Your task to perform on an android device: Go to battery settings Image 0: 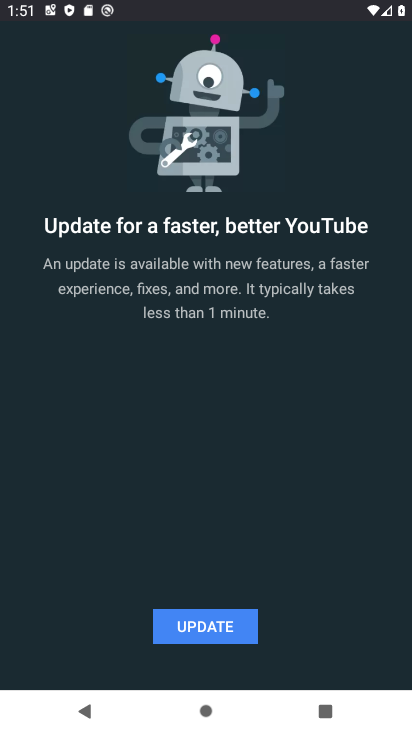
Step 0: press home button
Your task to perform on an android device: Go to battery settings Image 1: 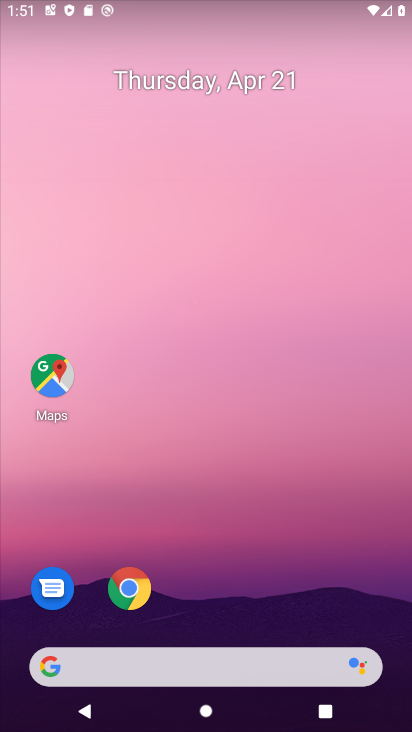
Step 1: drag from (186, 574) to (212, 274)
Your task to perform on an android device: Go to battery settings Image 2: 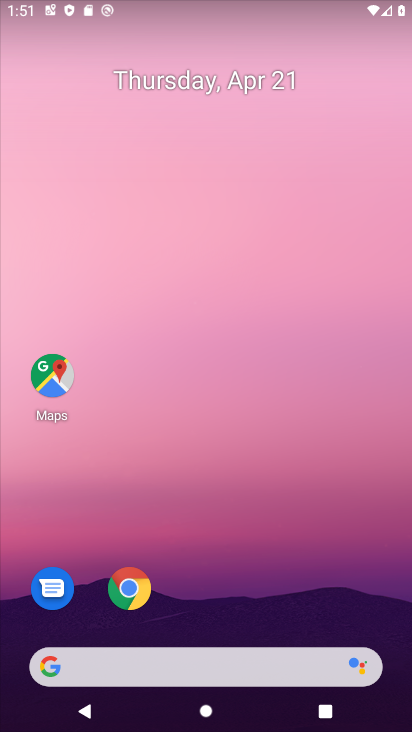
Step 2: drag from (241, 610) to (353, 25)
Your task to perform on an android device: Go to battery settings Image 3: 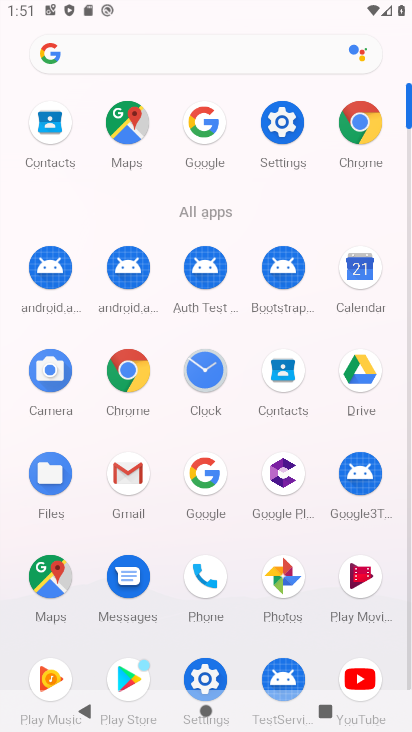
Step 3: click (284, 143)
Your task to perform on an android device: Go to battery settings Image 4: 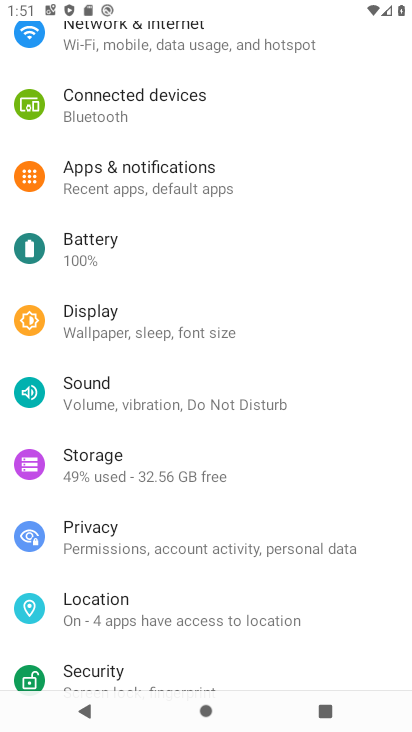
Step 4: click (102, 271)
Your task to perform on an android device: Go to battery settings Image 5: 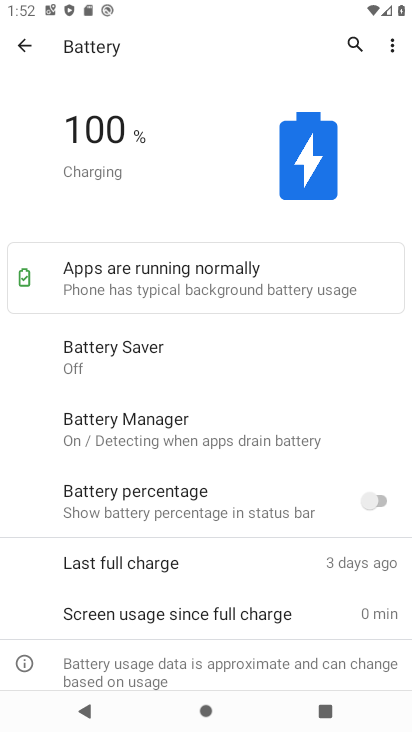
Step 5: task complete